Your task to perform on an android device: Go to Google maps Image 0: 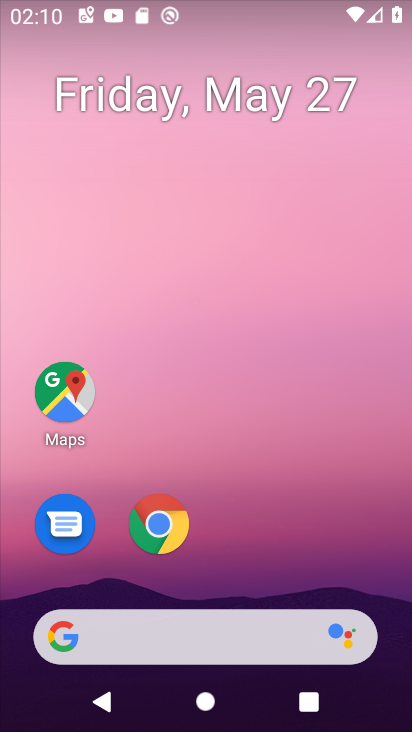
Step 0: click (58, 394)
Your task to perform on an android device: Go to Google maps Image 1: 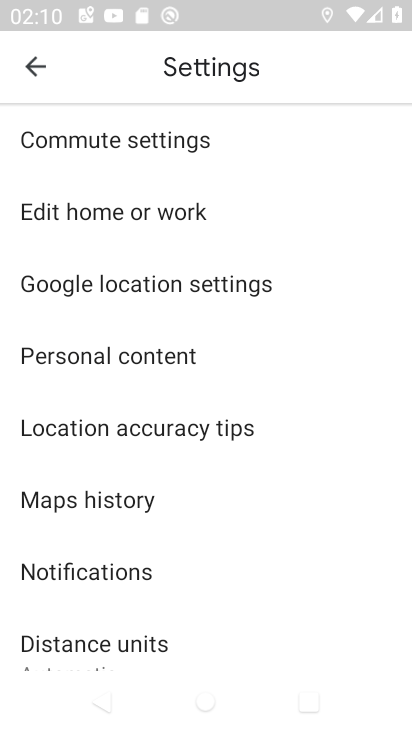
Step 1: click (38, 61)
Your task to perform on an android device: Go to Google maps Image 2: 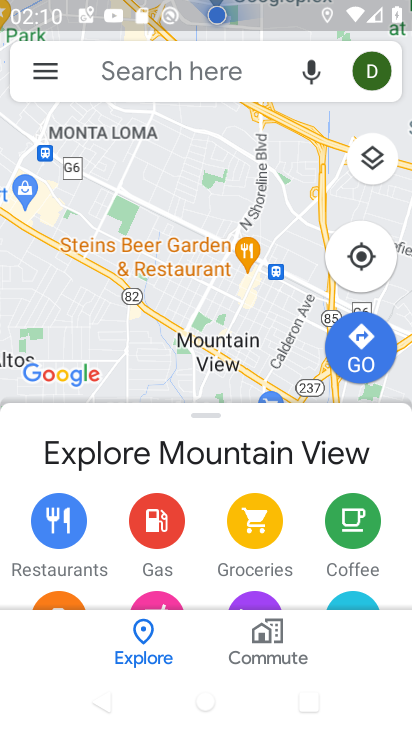
Step 2: task complete